Your task to perform on an android device: uninstall "Paramount+ | Peak Streaming" Image 0: 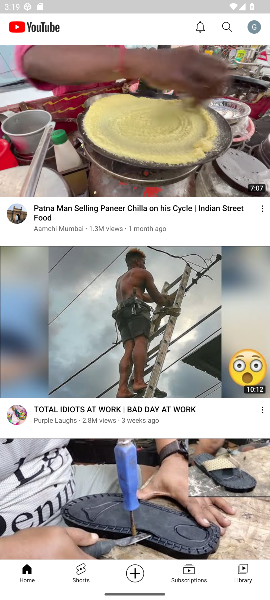
Step 0: press home button
Your task to perform on an android device: uninstall "Paramount+ | Peak Streaming" Image 1: 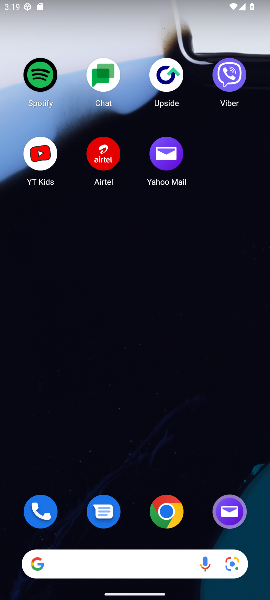
Step 1: drag from (131, 395) to (108, 145)
Your task to perform on an android device: uninstall "Paramount+ | Peak Streaming" Image 2: 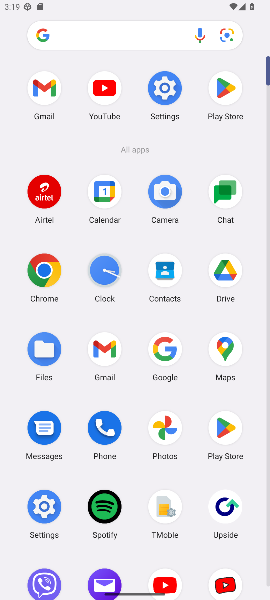
Step 2: click (223, 116)
Your task to perform on an android device: uninstall "Paramount+ | Peak Streaming" Image 3: 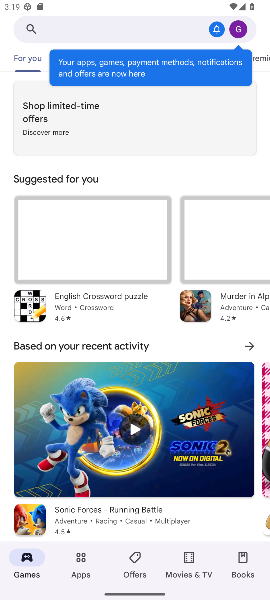
Step 3: click (95, 24)
Your task to perform on an android device: uninstall "Paramount+ | Peak Streaming" Image 4: 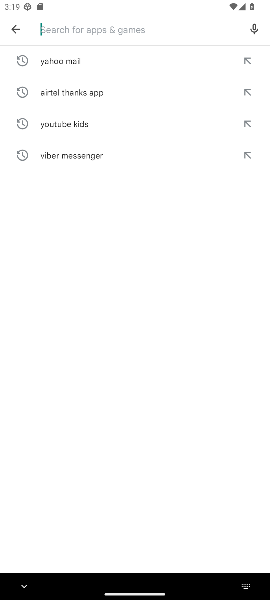
Step 4: type "paramount+ pe"
Your task to perform on an android device: uninstall "Paramount+ | Peak Streaming" Image 5: 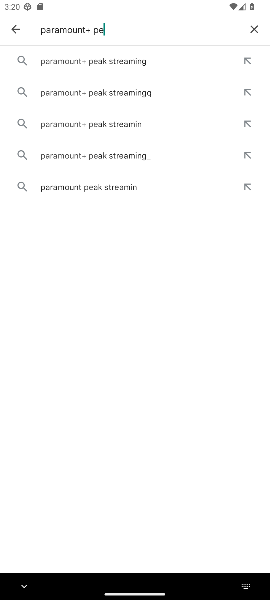
Step 5: type "ak streaming"
Your task to perform on an android device: uninstall "Paramount+ | Peak Streaming" Image 6: 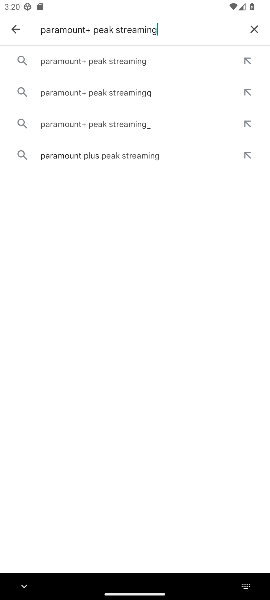
Step 6: click (136, 60)
Your task to perform on an android device: uninstall "Paramount+ | Peak Streaming" Image 7: 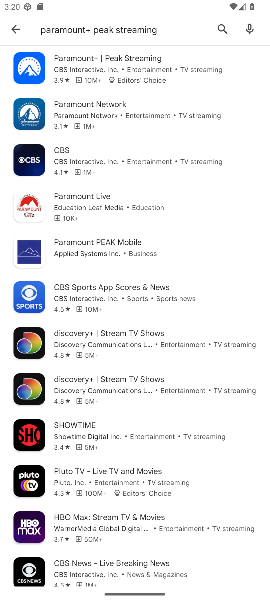
Step 7: click (116, 71)
Your task to perform on an android device: uninstall "Paramount+ | Peak Streaming" Image 8: 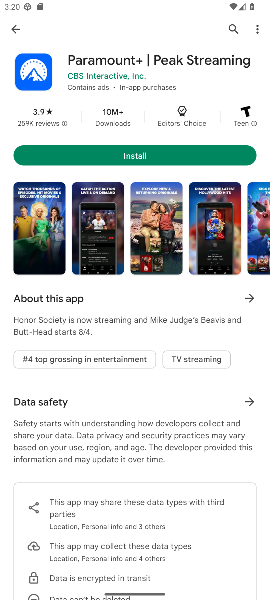
Step 8: task complete